Your task to perform on an android device: Do I have any events today? Image 0: 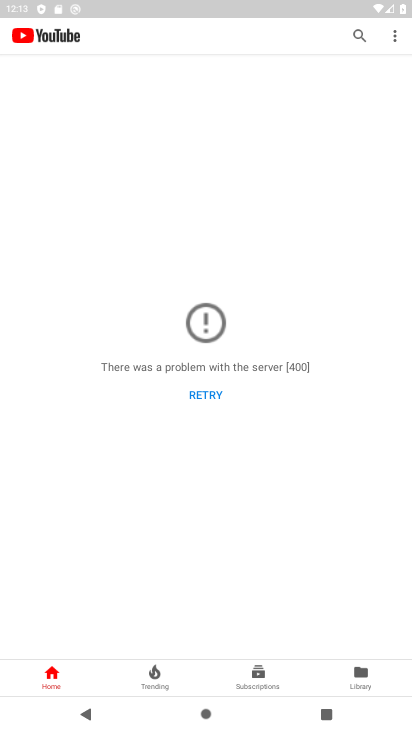
Step 0: press home button
Your task to perform on an android device: Do I have any events today? Image 1: 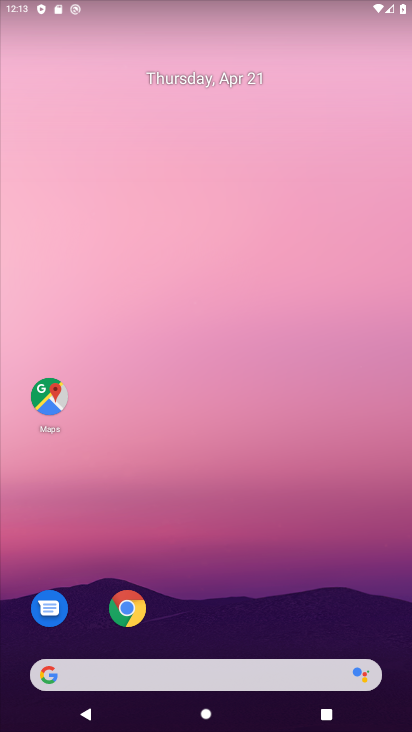
Step 1: drag from (149, 596) to (145, 341)
Your task to perform on an android device: Do I have any events today? Image 2: 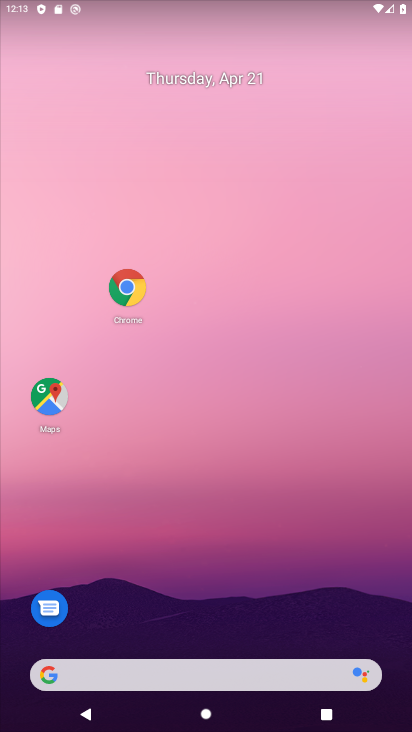
Step 2: drag from (312, 509) to (131, 113)
Your task to perform on an android device: Do I have any events today? Image 3: 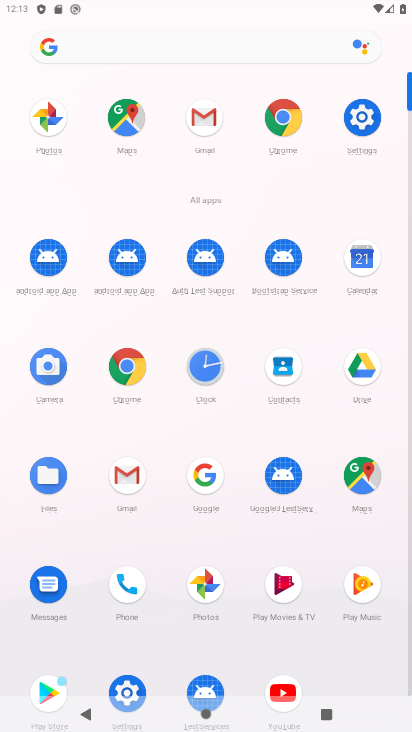
Step 3: click (367, 255)
Your task to perform on an android device: Do I have any events today? Image 4: 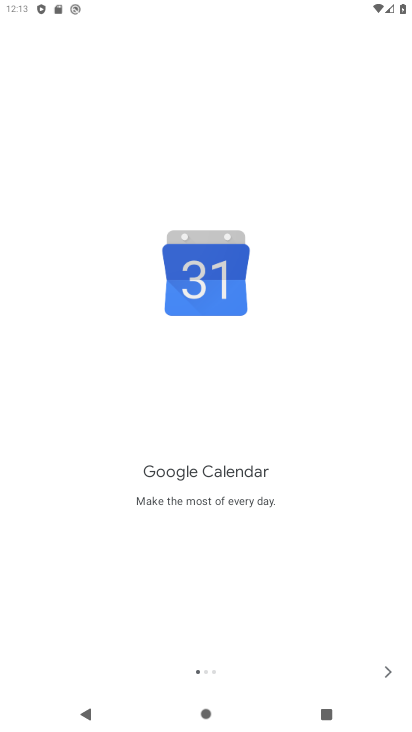
Step 4: click (392, 663)
Your task to perform on an android device: Do I have any events today? Image 5: 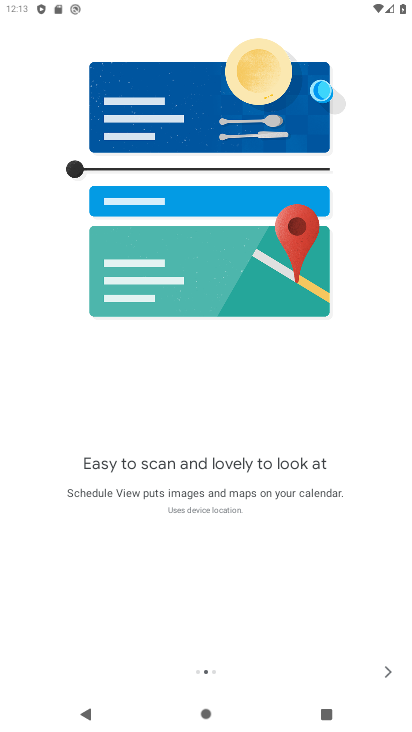
Step 5: click (384, 673)
Your task to perform on an android device: Do I have any events today? Image 6: 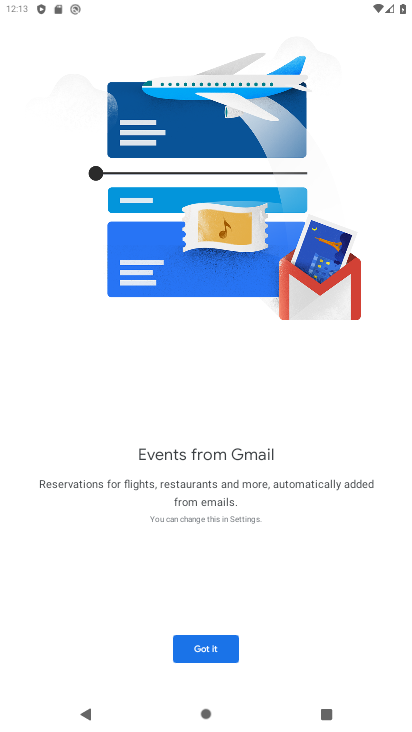
Step 6: click (384, 673)
Your task to perform on an android device: Do I have any events today? Image 7: 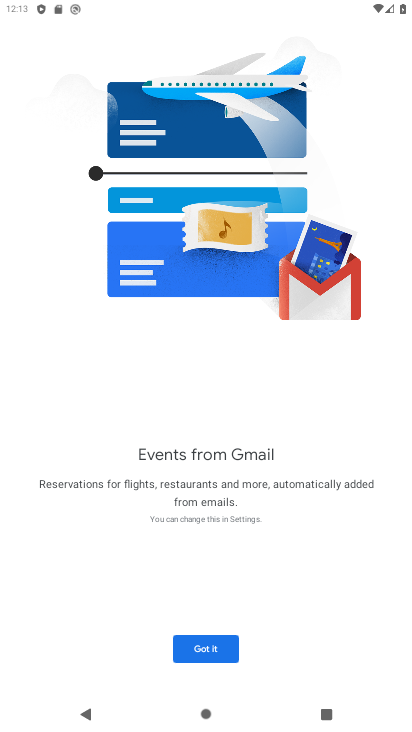
Step 7: click (227, 657)
Your task to perform on an android device: Do I have any events today? Image 8: 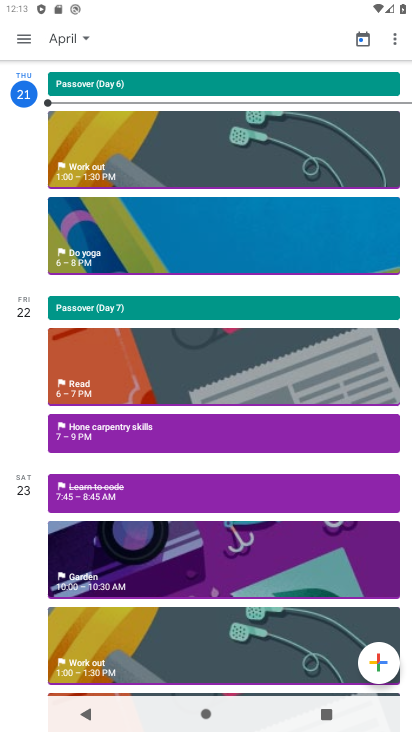
Step 8: click (144, 150)
Your task to perform on an android device: Do I have any events today? Image 9: 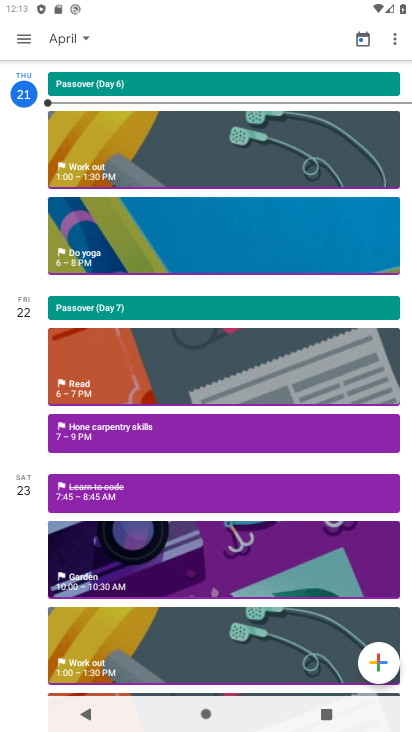
Step 9: click (95, 230)
Your task to perform on an android device: Do I have any events today? Image 10: 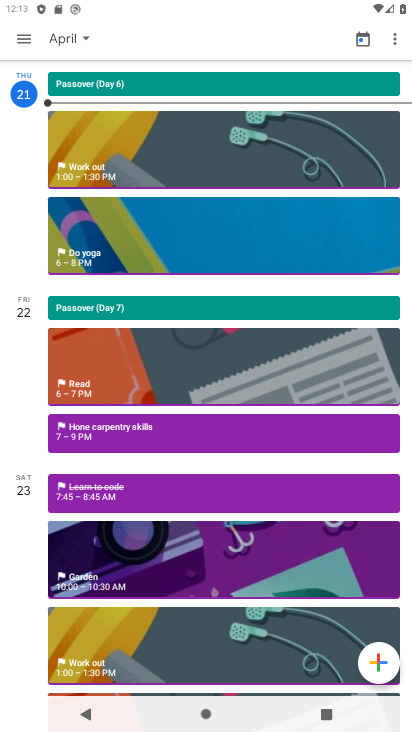
Step 10: task complete